Your task to perform on an android device: show emergency info Image 0: 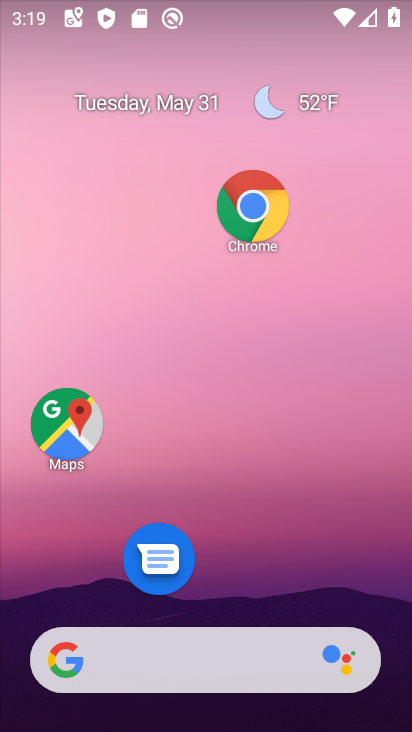
Step 0: drag from (218, 593) to (184, 239)
Your task to perform on an android device: show emergency info Image 1: 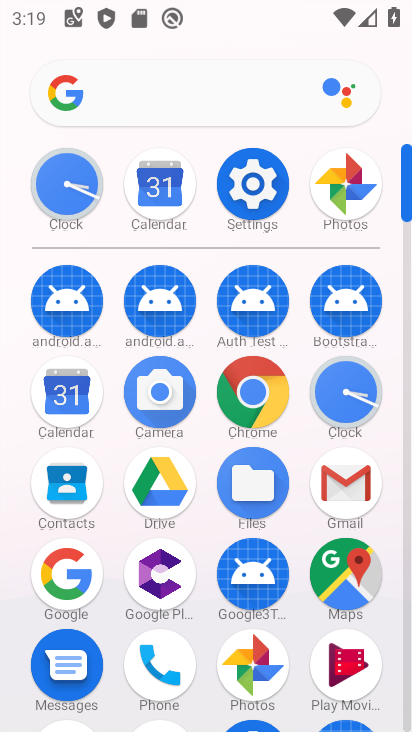
Step 1: click (243, 194)
Your task to perform on an android device: show emergency info Image 2: 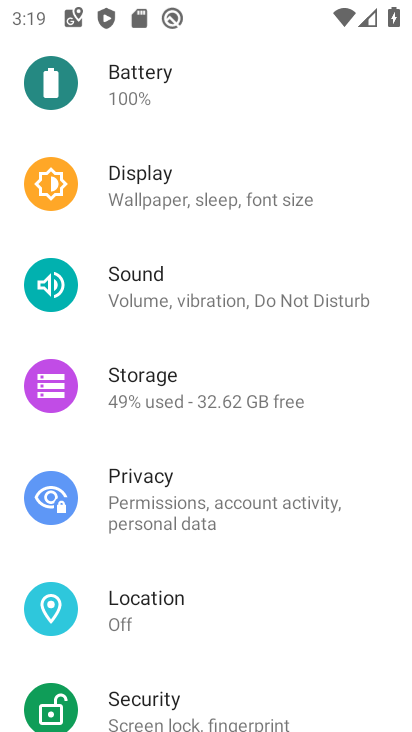
Step 2: drag from (211, 640) to (209, 286)
Your task to perform on an android device: show emergency info Image 3: 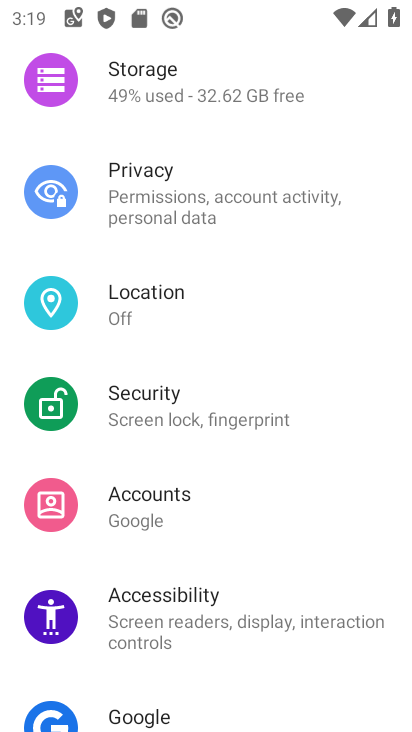
Step 3: drag from (214, 675) to (221, 429)
Your task to perform on an android device: show emergency info Image 4: 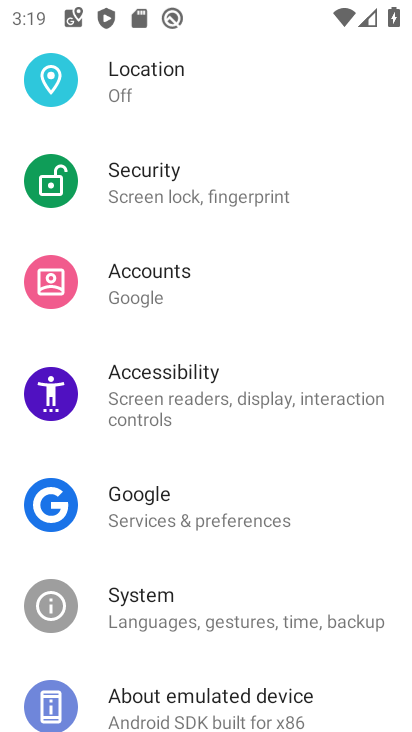
Step 4: drag from (185, 682) to (194, 364)
Your task to perform on an android device: show emergency info Image 5: 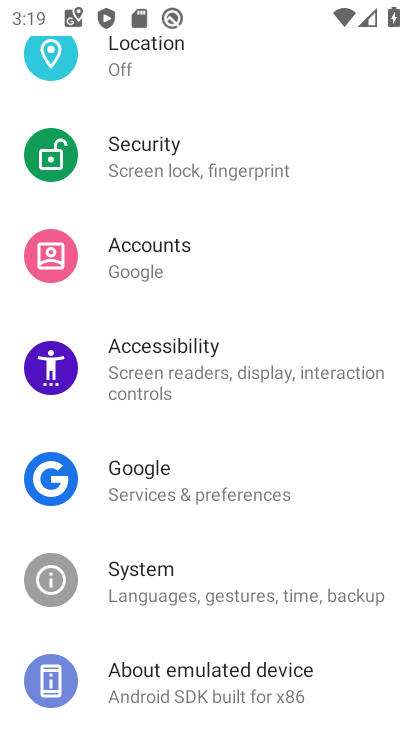
Step 5: click (166, 697)
Your task to perform on an android device: show emergency info Image 6: 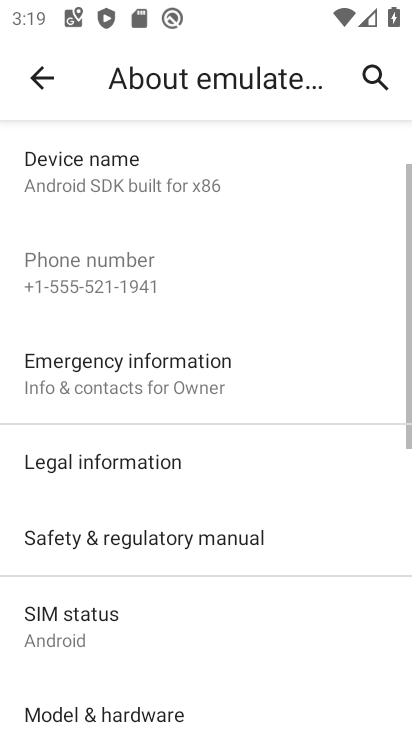
Step 6: click (103, 379)
Your task to perform on an android device: show emergency info Image 7: 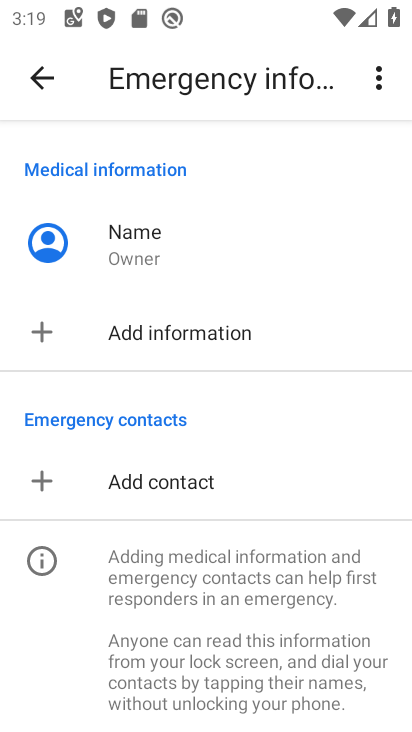
Step 7: task complete